Your task to perform on an android device: Open the map Image 0: 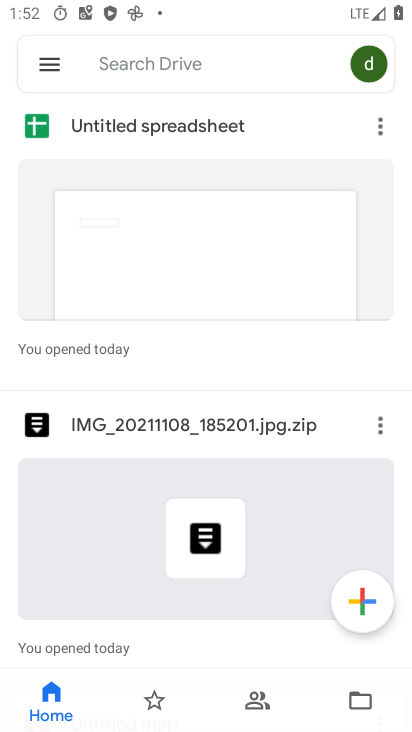
Step 0: press home button
Your task to perform on an android device: Open the map Image 1: 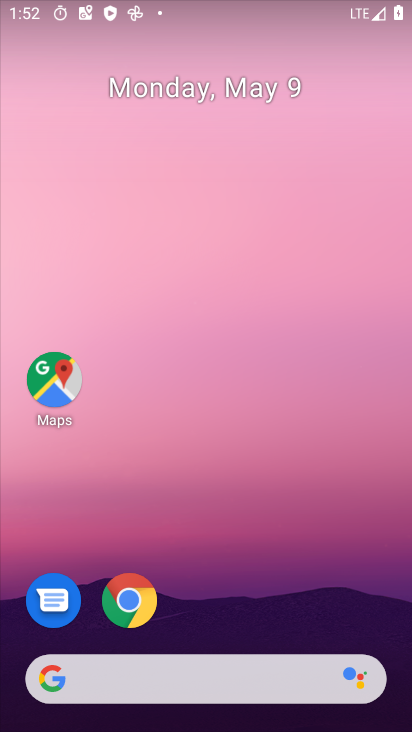
Step 1: drag from (228, 603) to (294, 238)
Your task to perform on an android device: Open the map Image 2: 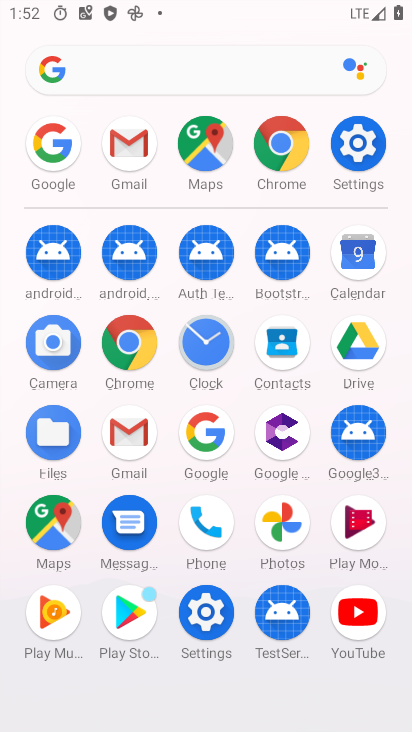
Step 2: click (41, 533)
Your task to perform on an android device: Open the map Image 3: 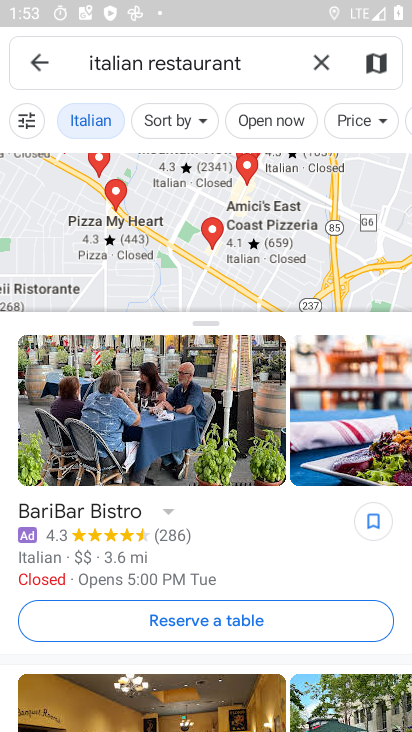
Step 3: task complete